Your task to perform on an android device: Go to internet settings Image 0: 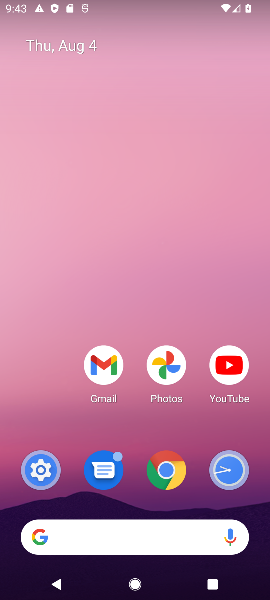
Step 0: click (49, 468)
Your task to perform on an android device: Go to internet settings Image 1: 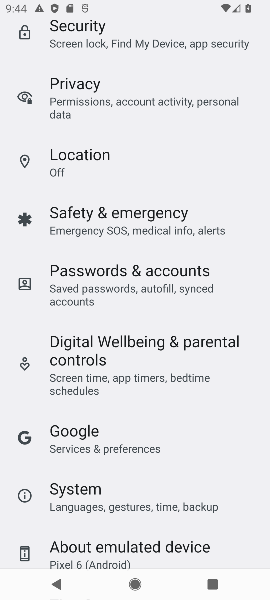
Step 1: drag from (130, 94) to (157, 395)
Your task to perform on an android device: Go to internet settings Image 2: 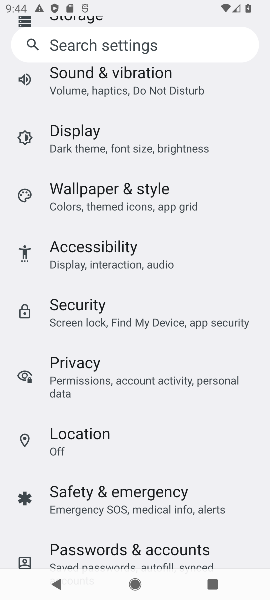
Step 2: drag from (148, 233) to (6, 410)
Your task to perform on an android device: Go to internet settings Image 3: 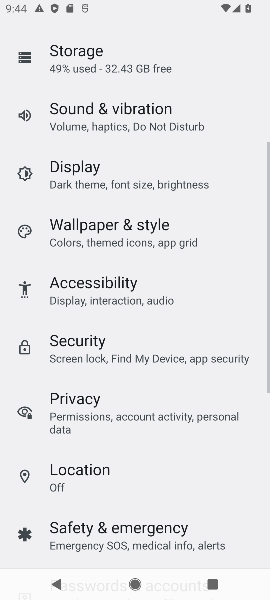
Step 3: drag from (88, 232) to (99, 445)
Your task to perform on an android device: Go to internet settings Image 4: 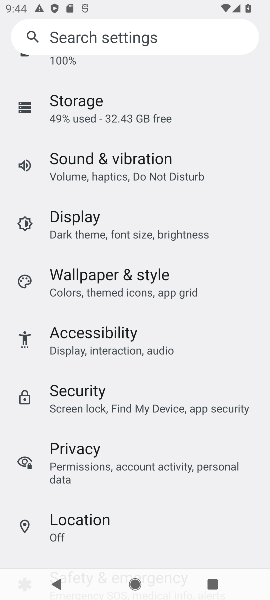
Step 4: drag from (150, 86) to (214, 398)
Your task to perform on an android device: Go to internet settings Image 5: 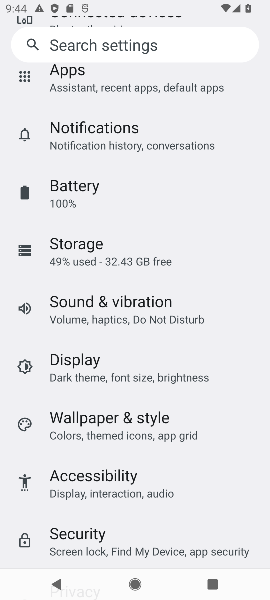
Step 5: drag from (153, 137) to (190, 384)
Your task to perform on an android device: Go to internet settings Image 6: 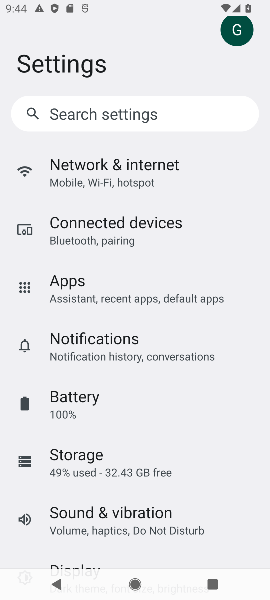
Step 6: click (120, 159)
Your task to perform on an android device: Go to internet settings Image 7: 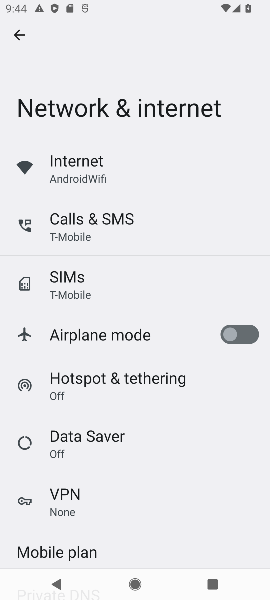
Step 7: click (92, 170)
Your task to perform on an android device: Go to internet settings Image 8: 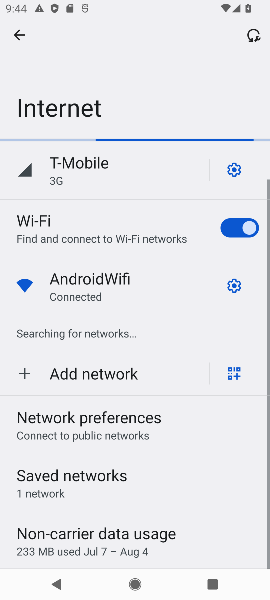
Step 8: click (237, 172)
Your task to perform on an android device: Go to internet settings Image 9: 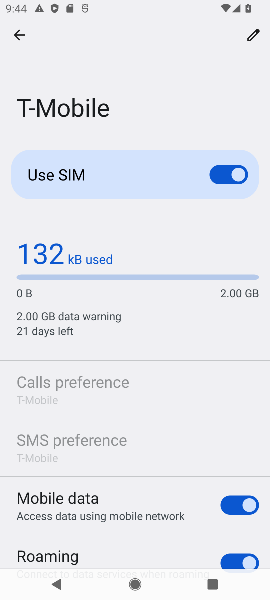
Step 9: task complete